Your task to perform on an android device: Open battery settings Image 0: 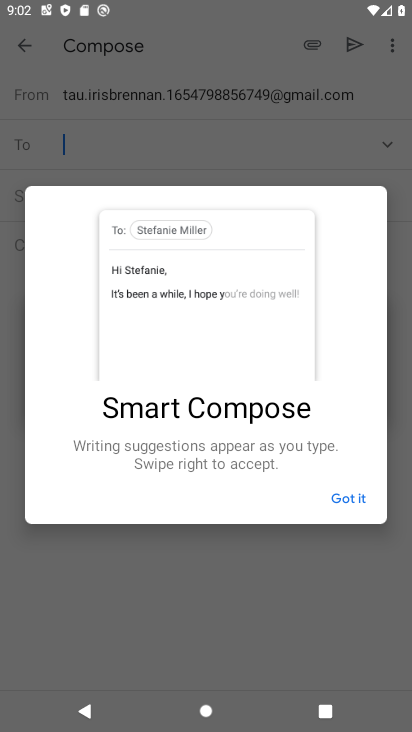
Step 0: press home button
Your task to perform on an android device: Open battery settings Image 1: 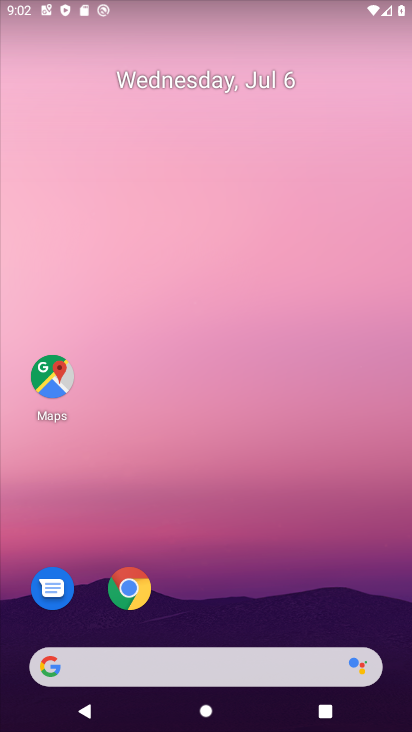
Step 1: drag from (192, 669) to (325, 34)
Your task to perform on an android device: Open battery settings Image 2: 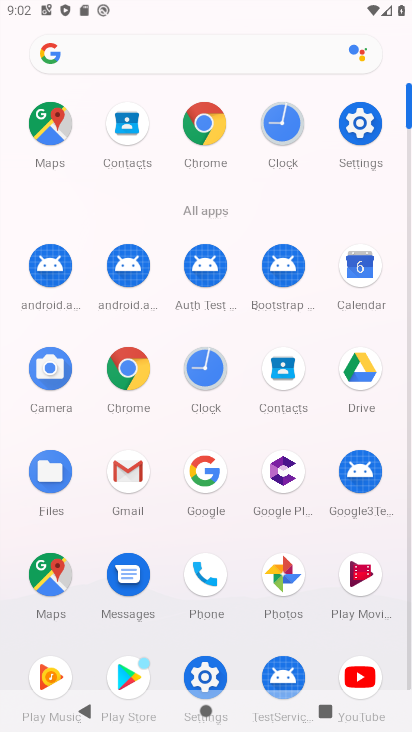
Step 2: click (360, 137)
Your task to perform on an android device: Open battery settings Image 3: 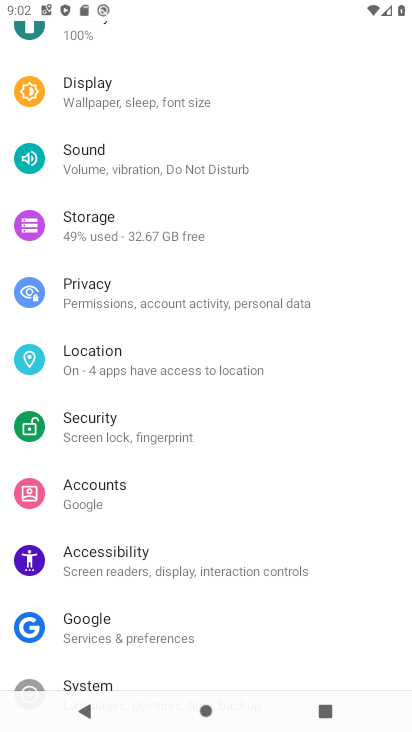
Step 3: drag from (200, 503) to (263, 201)
Your task to perform on an android device: Open battery settings Image 4: 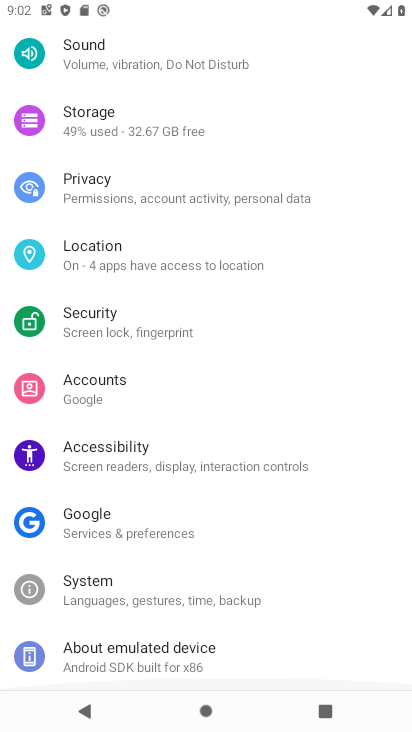
Step 4: drag from (256, 183) to (239, 642)
Your task to perform on an android device: Open battery settings Image 5: 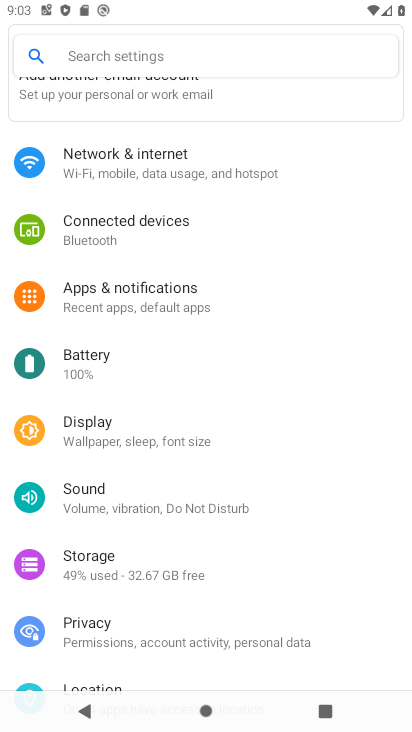
Step 5: click (117, 355)
Your task to perform on an android device: Open battery settings Image 6: 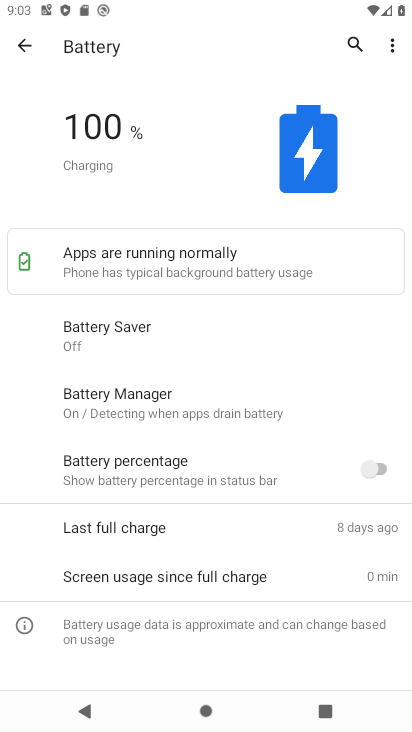
Step 6: task complete